Your task to perform on an android device: find which apps use the phone's location Image 0: 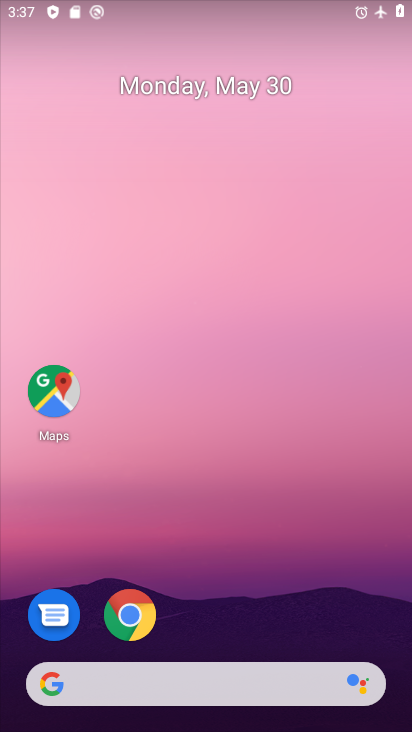
Step 0: drag from (301, 620) to (382, 40)
Your task to perform on an android device: find which apps use the phone's location Image 1: 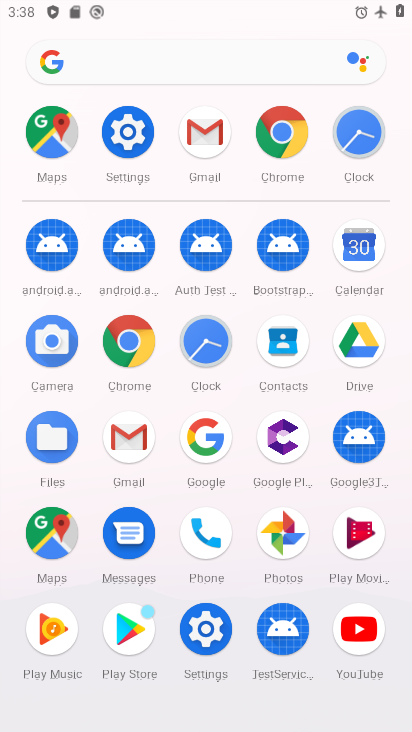
Step 1: click (143, 121)
Your task to perform on an android device: find which apps use the phone's location Image 2: 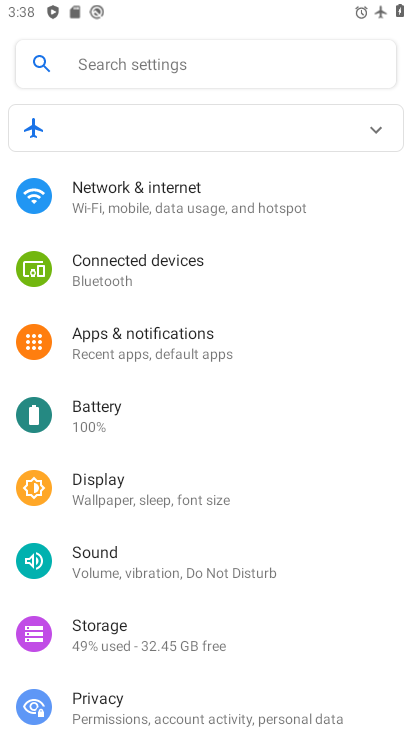
Step 2: drag from (186, 588) to (266, 208)
Your task to perform on an android device: find which apps use the phone's location Image 3: 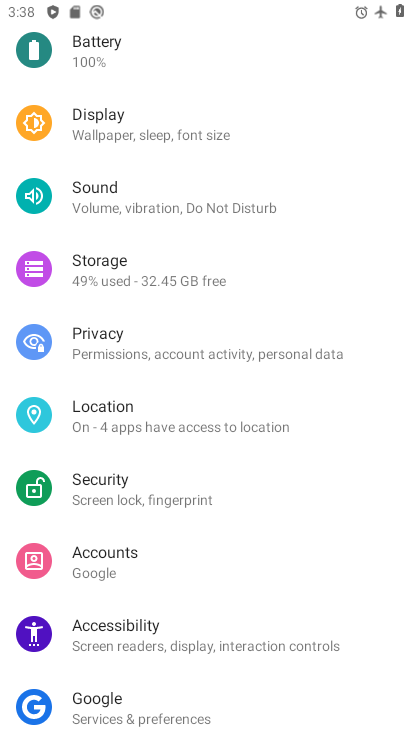
Step 3: click (191, 422)
Your task to perform on an android device: find which apps use the phone's location Image 4: 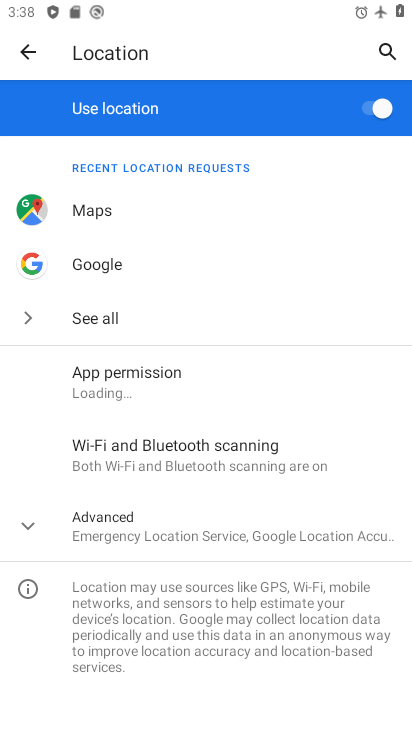
Step 4: click (191, 381)
Your task to perform on an android device: find which apps use the phone's location Image 5: 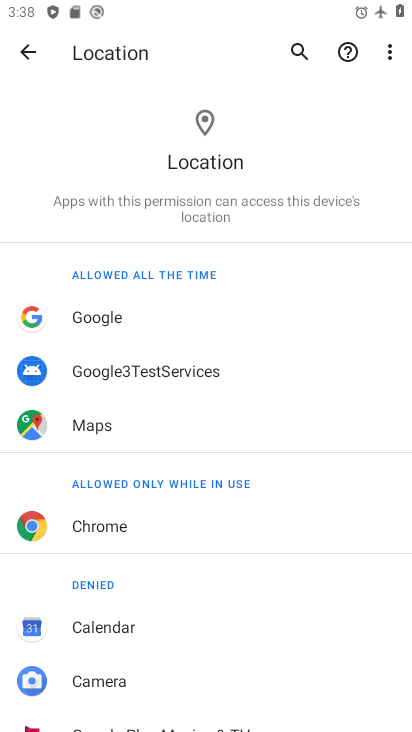
Step 5: task complete